Your task to perform on an android device: Open Google Maps and go to "Timeline" Image 0: 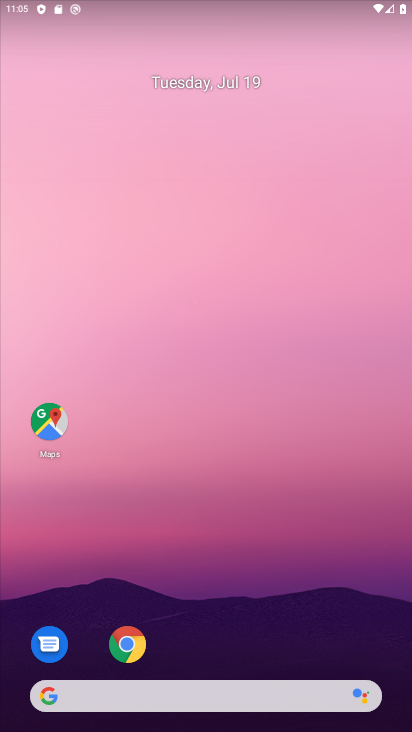
Step 0: click (68, 429)
Your task to perform on an android device: Open Google Maps and go to "Timeline" Image 1: 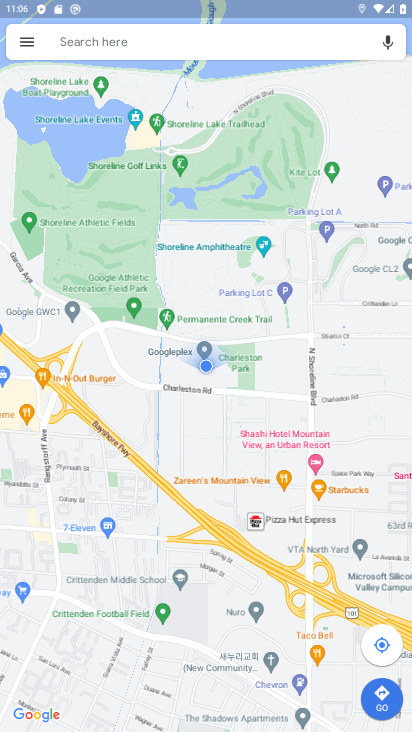
Step 1: click (13, 37)
Your task to perform on an android device: Open Google Maps and go to "Timeline" Image 2: 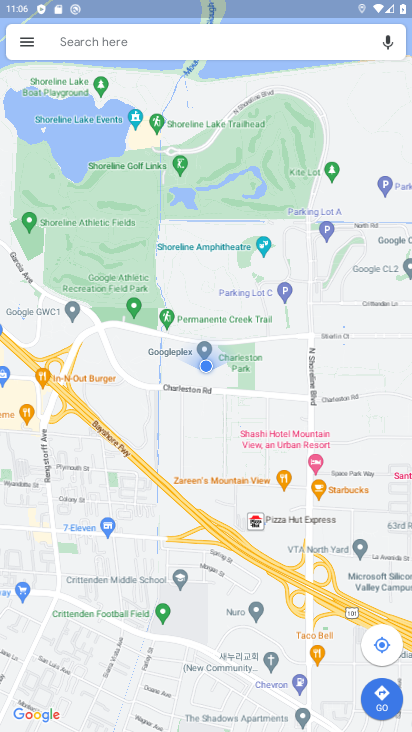
Step 2: click (20, 38)
Your task to perform on an android device: Open Google Maps and go to "Timeline" Image 3: 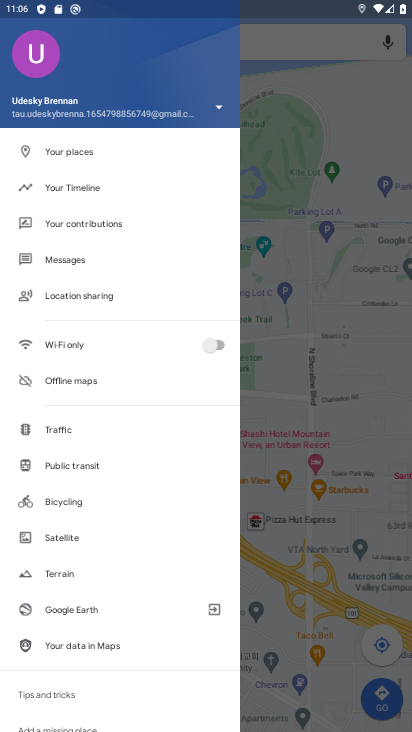
Step 3: click (44, 189)
Your task to perform on an android device: Open Google Maps and go to "Timeline" Image 4: 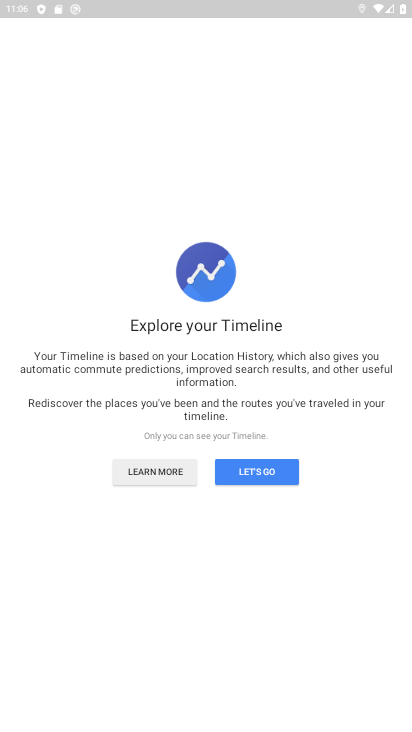
Step 4: click (230, 475)
Your task to perform on an android device: Open Google Maps and go to "Timeline" Image 5: 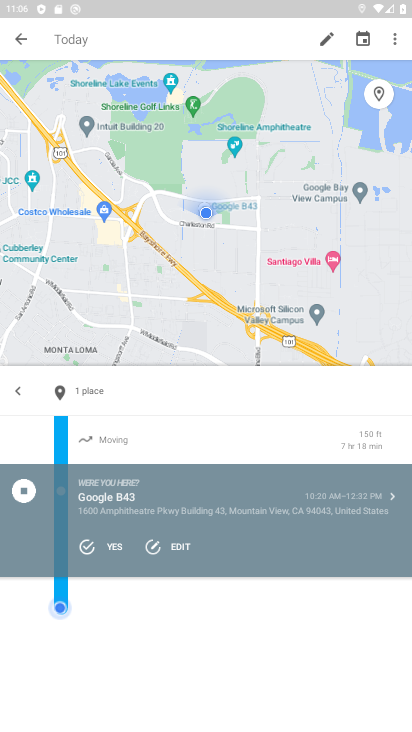
Step 5: task complete